Your task to perform on an android device: Open the Play Movies app and select the watchlist tab. Image 0: 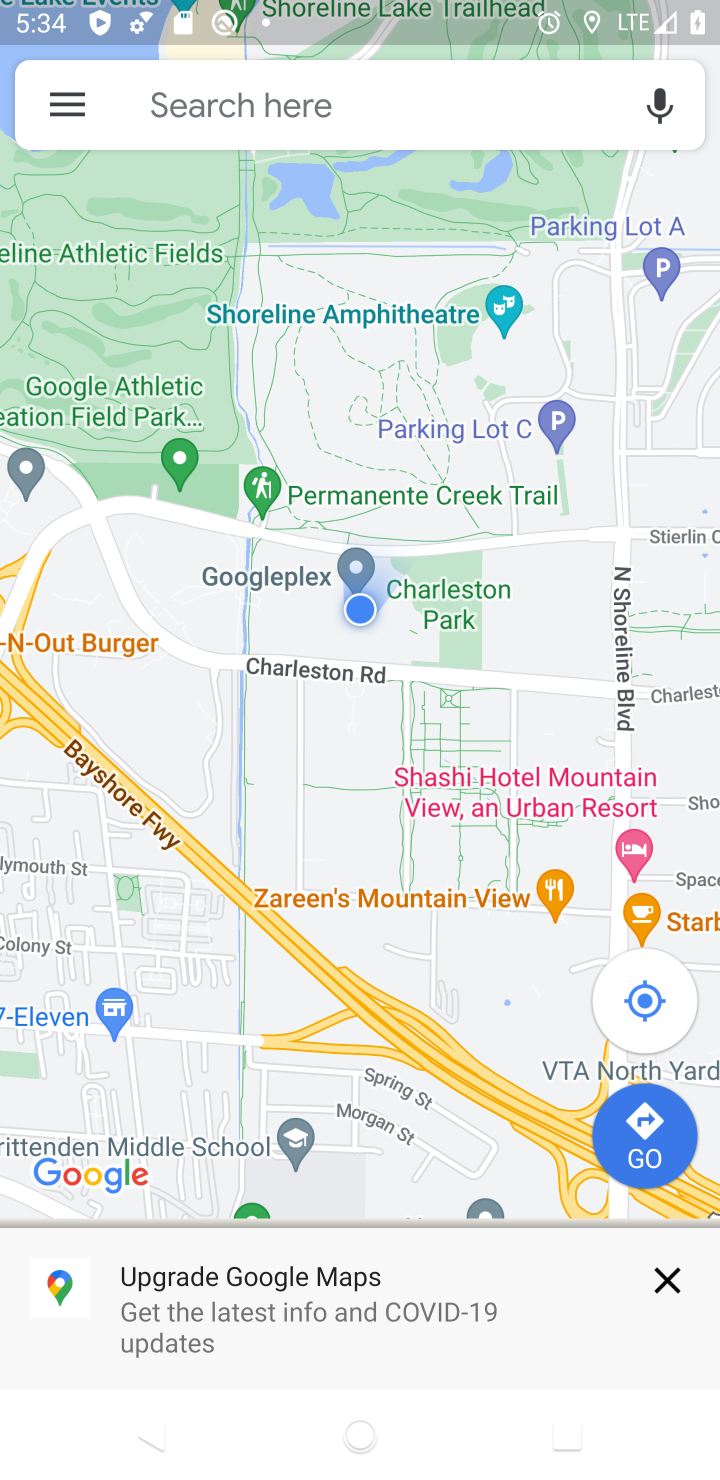
Step 0: press home button
Your task to perform on an android device: Open the Play Movies app and select the watchlist tab. Image 1: 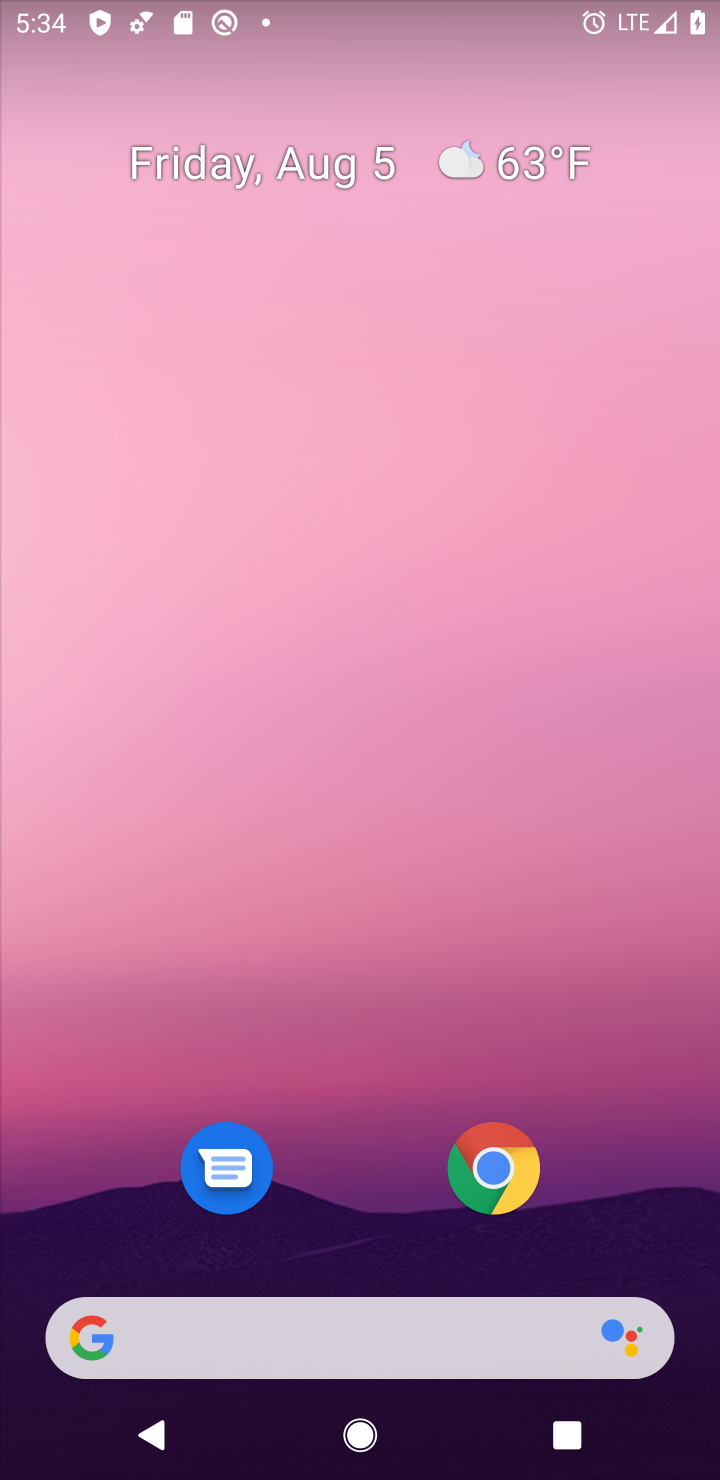
Step 1: drag from (397, 1259) to (445, 30)
Your task to perform on an android device: Open the Play Movies app and select the watchlist tab. Image 2: 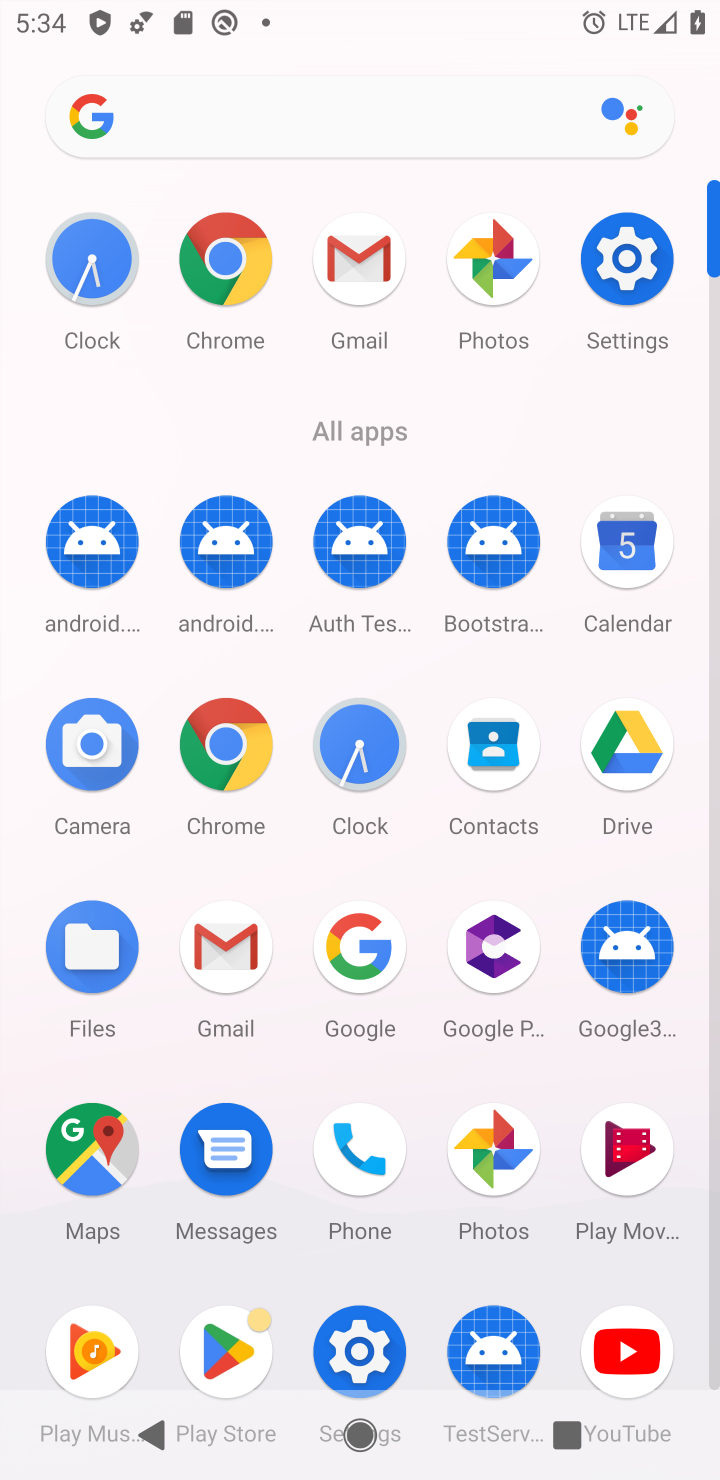
Step 2: click (614, 1165)
Your task to perform on an android device: Open the Play Movies app and select the watchlist tab. Image 3: 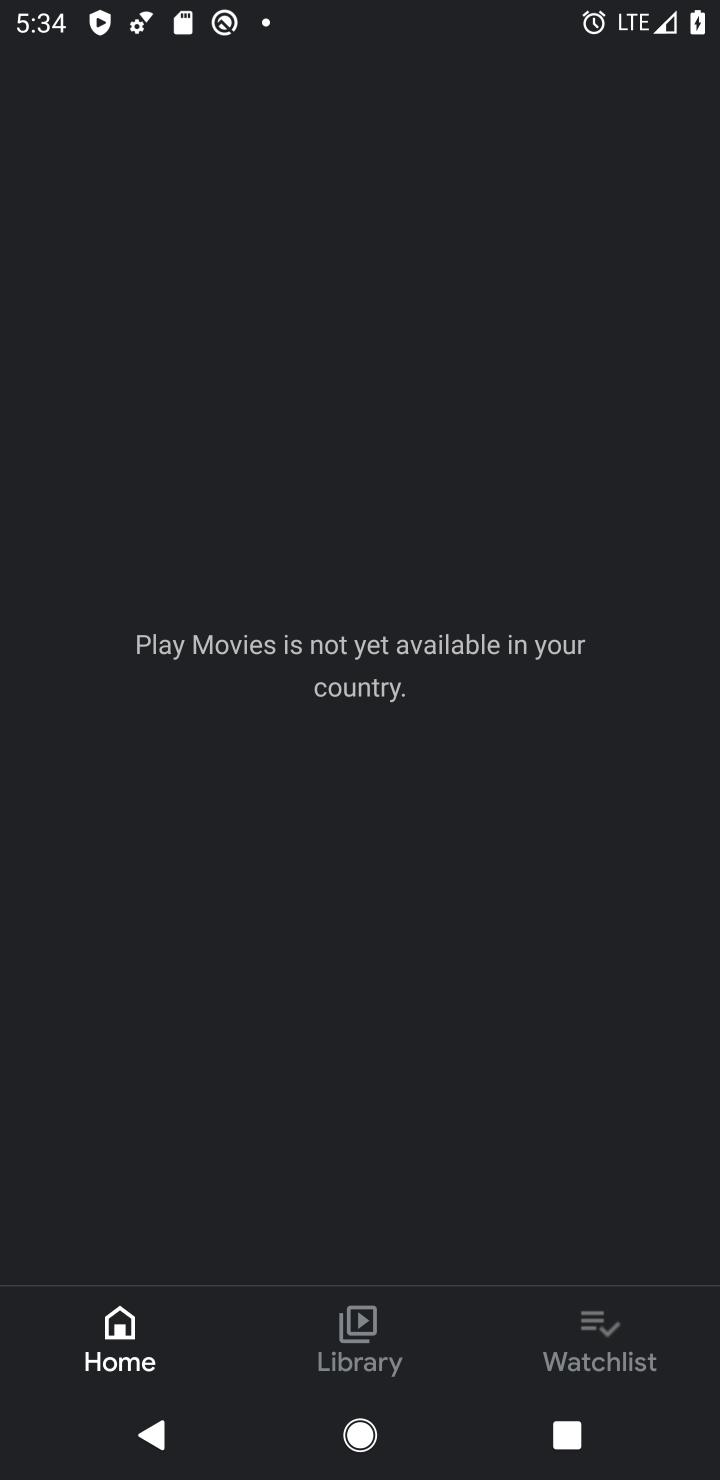
Step 3: click (614, 1325)
Your task to perform on an android device: Open the Play Movies app and select the watchlist tab. Image 4: 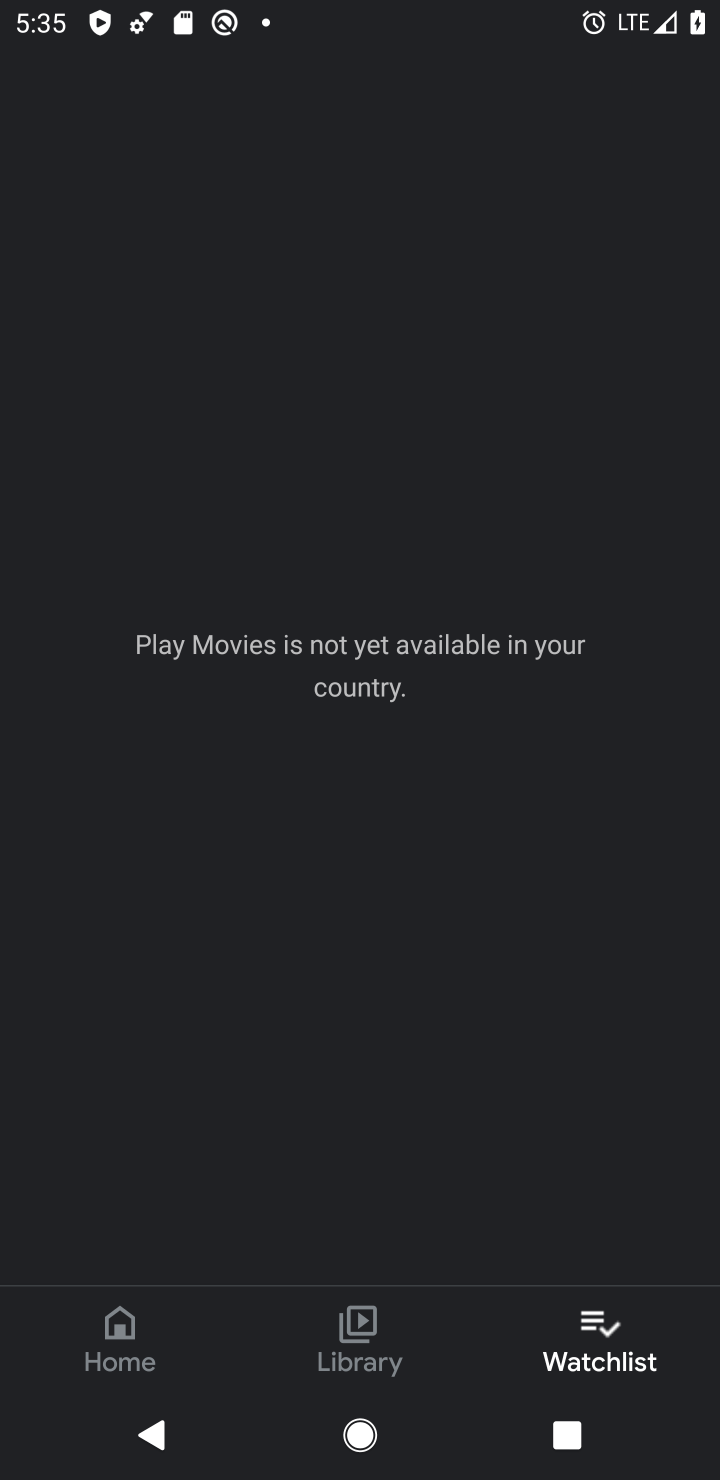
Step 4: task complete